Your task to perform on an android device: Show me recent news Image 0: 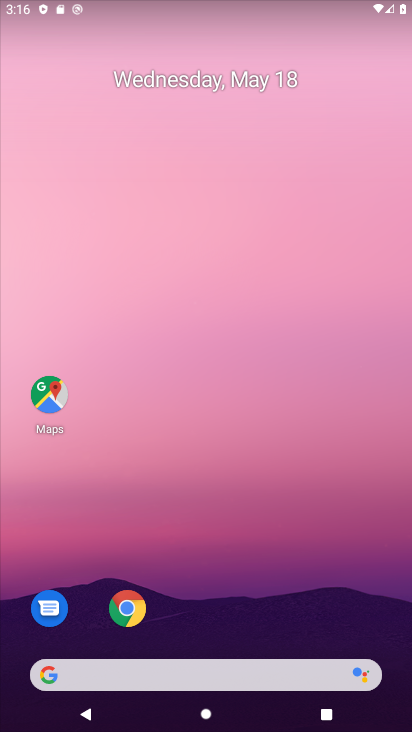
Step 0: click (174, 675)
Your task to perform on an android device: Show me recent news Image 1: 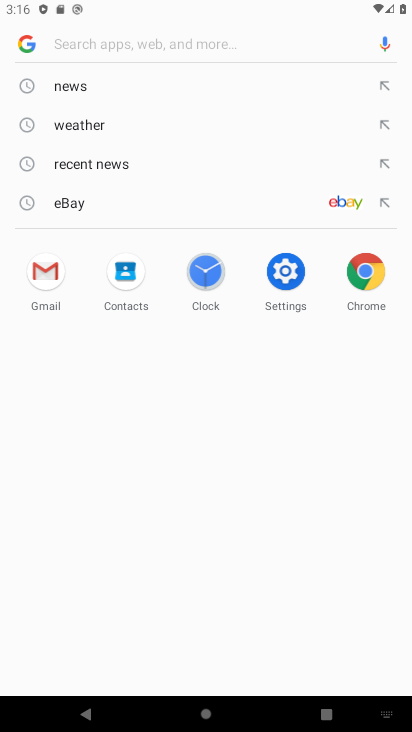
Step 1: click (143, 157)
Your task to perform on an android device: Show me recent news Image 2: 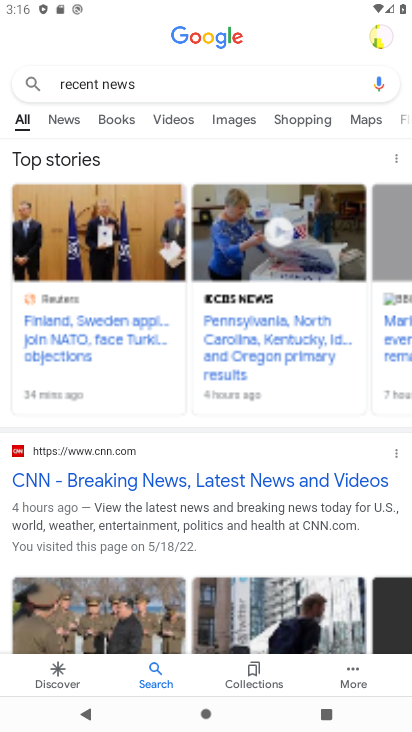
Step 2: task complete